Your task to perform on an android device: Show me productivity apps on the Play Store Image 0: 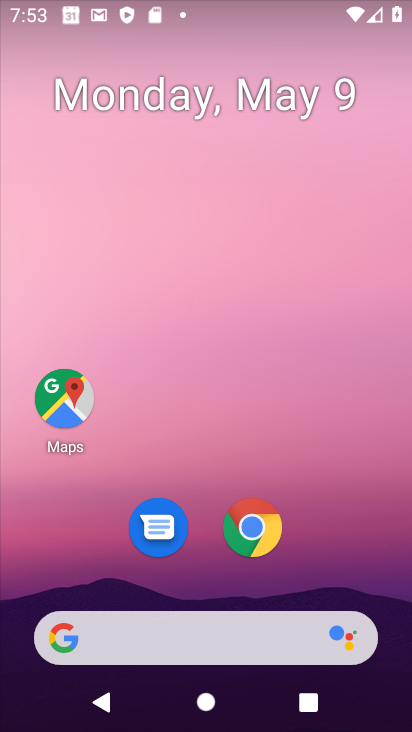
Step 0: drag from (240, 644) to (273, 342)
Your task to perform on an android device: Show me productivity apps on the Play Store Image 1: 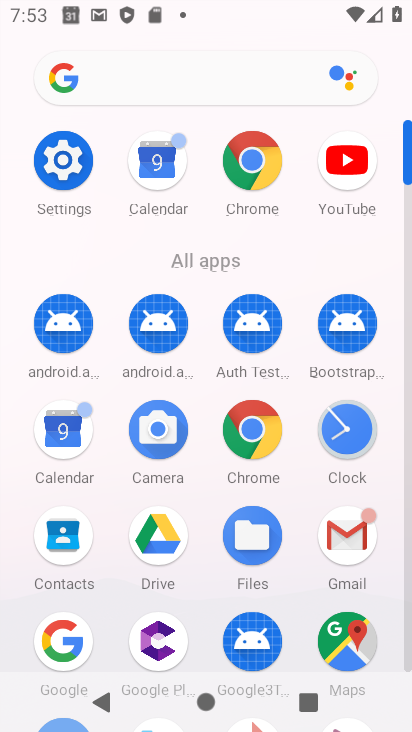
Step 1: drag from (294, 577) to (284, 271)
Your task to perform on an android device: Show me productivity apps on the Play Store Image 2: 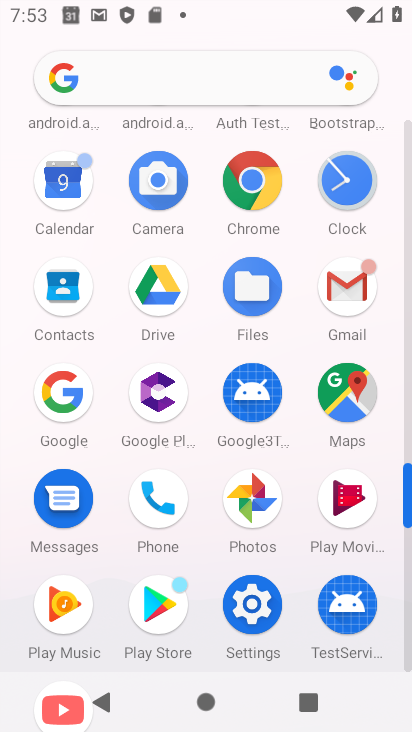
Step 2: click (158, 624)
Your task to perform on an android device: Show me productivity apps on the Play Store Image 3: 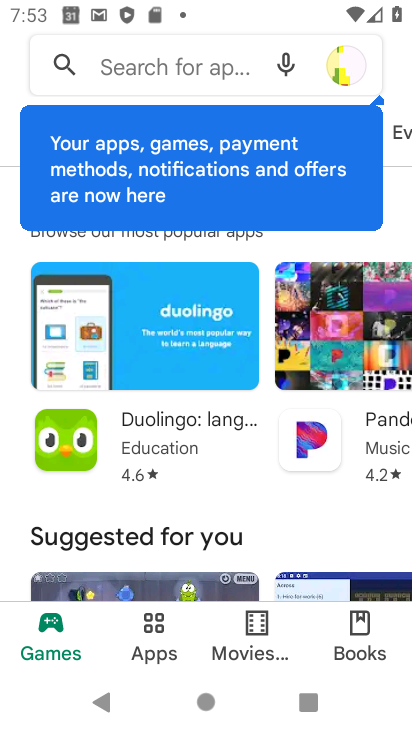
Step 3: click (209, 55)
Your task to perform on an android device: Show me productivity apps on the Play Store Image 4: 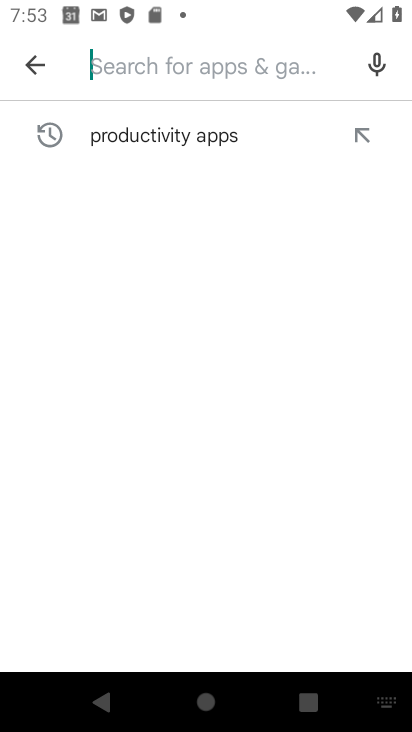
Step 4: click (203, 132)
Your task to perform on an android device: Show me productivity apps on the Play Store Image 5: 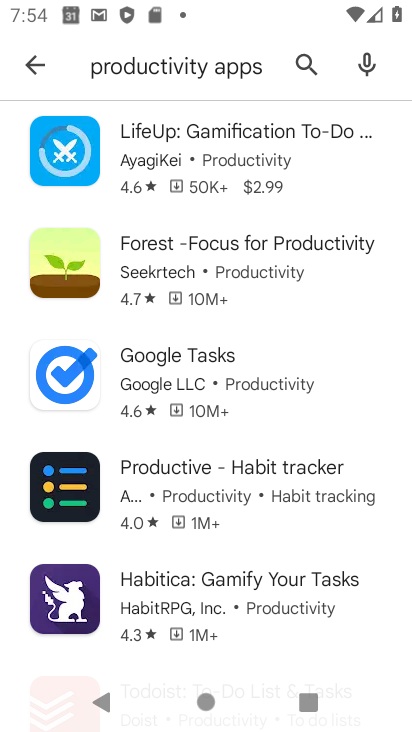
Step 5: task complete